Your task to perform on an android device: turn on bluetooth scan Image 0: 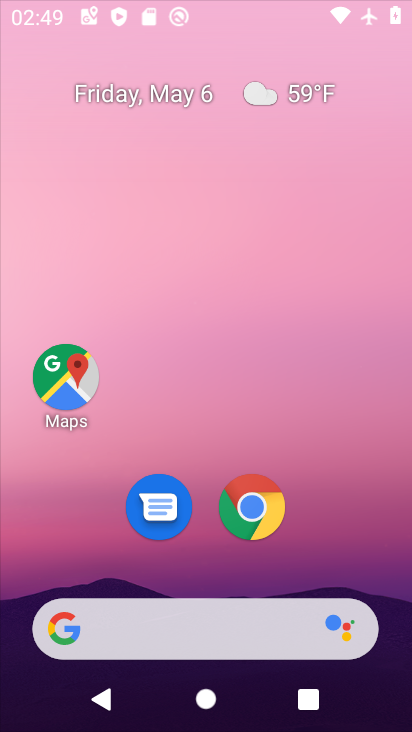
Step 0: drag from (319, 539) to (323, 25)
Your task to perform on an android device: turn on bluetooth scan Image 1: 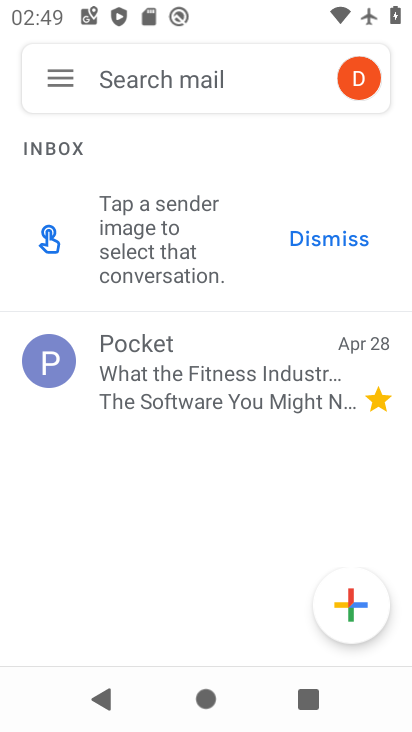
Step 1: press home button
Your task to perform on an android device: turn on bluetooth scan Image 2: 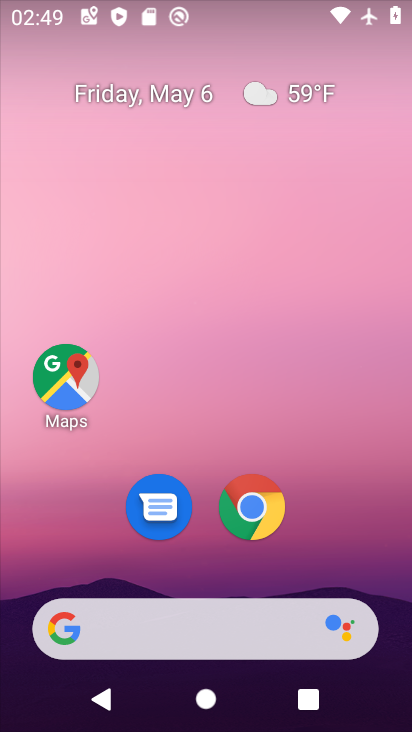
Step 2: drag from (336, 509) to (319, 158)
Your task to perform on an android device: turn on bluetooth scan Image 3: 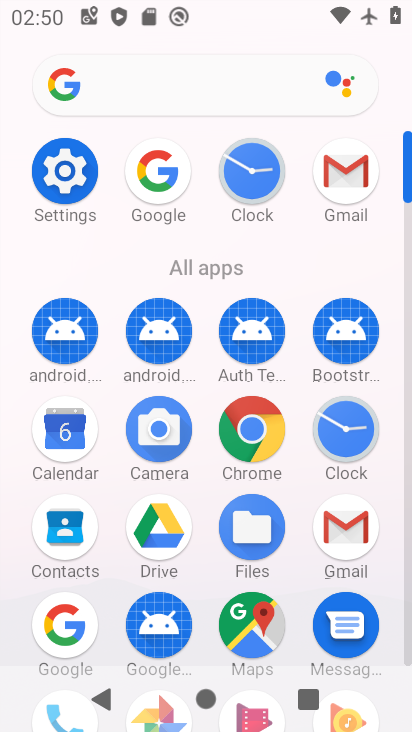
Step 3: click (57, 178)
Your task to perform on an android device: turn on bluetooth scan Image 4: 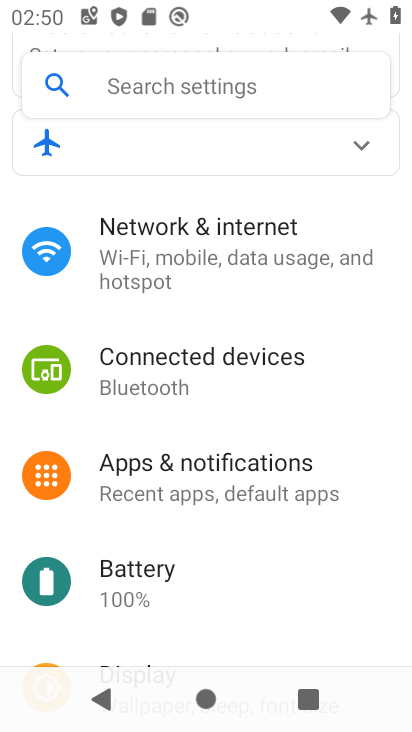
Step 4: drag from (211, 594) to (230, 320)
Your task to perform on an android device: turn on bluetooth scan Image 5: 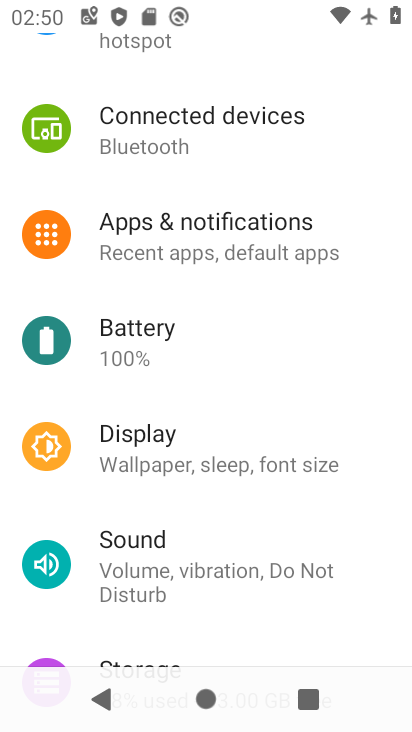
Step 5: drag from (212, 602) to (226, 320)
Your task to perform on an android device: turn on bluetooth scan Image 6: 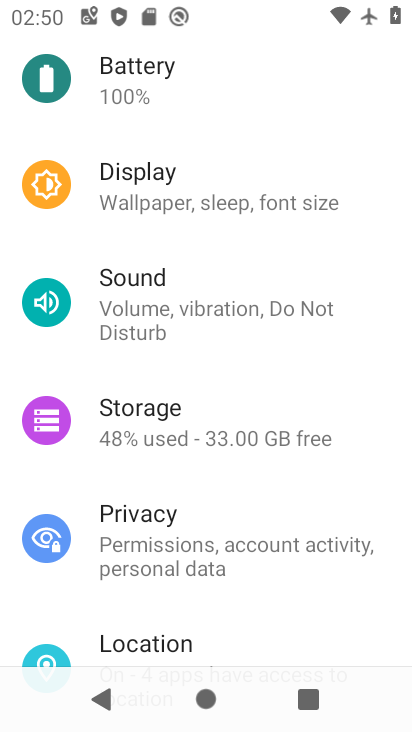
Step 6: drag from (221, 622) to (242, 413)
Your task to perform on an android device: turn on bluetooth scan Image 7: 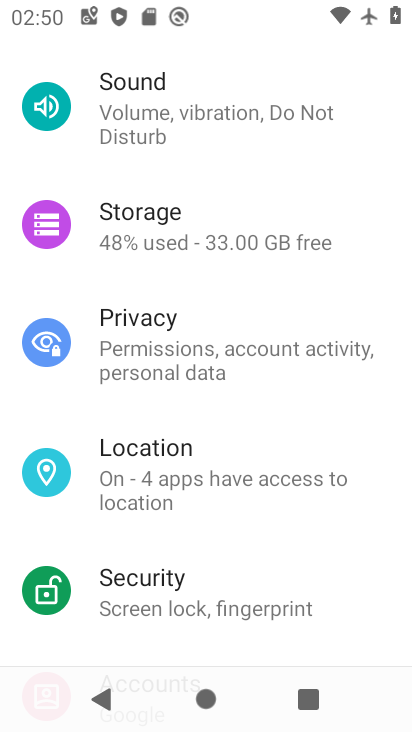
Step 7: click (204, 495)
Your task to perform on an android device: turn on bluetooth scan Image 8: 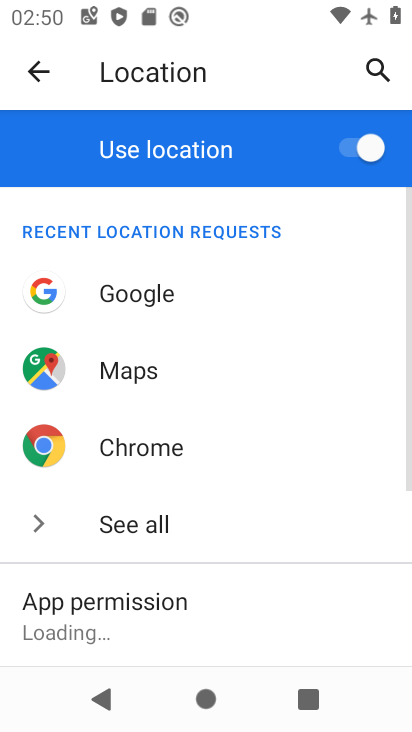
Step 8: drag from (212, 603) to (219, 374)
Your task to perform on an android device: turn on bluetooth scan Image 9: 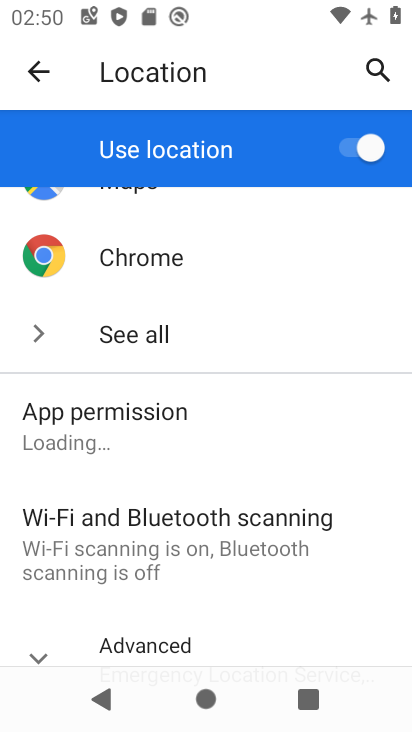
Step 9: drag from (239, 628) to (243, 384)
Your task to perform on an android device: turn on bluetooth scan Image 10: 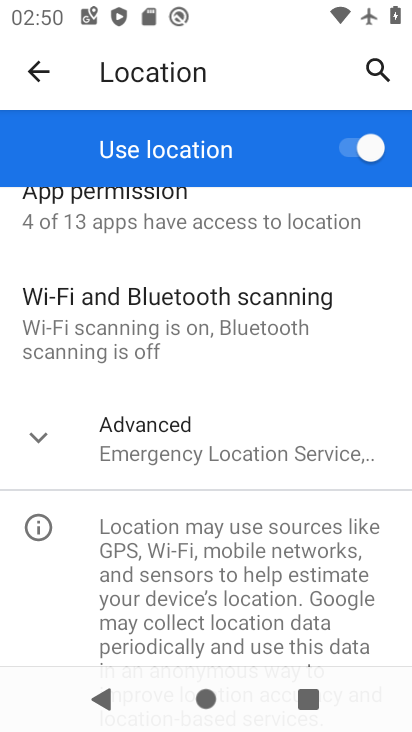
Step 10: click (145, 360)
Your task to perform on an android device: turn on bluetooth scan Image 11: 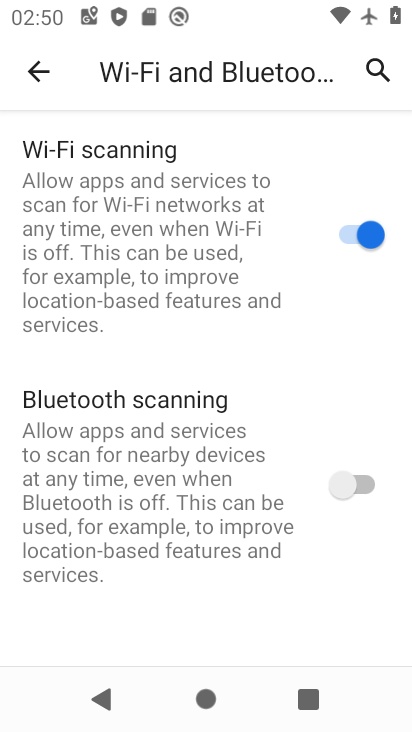
Step 11: click (364, 479)
Your task to perform on an android device: turn on bluetooth scan Image 12: 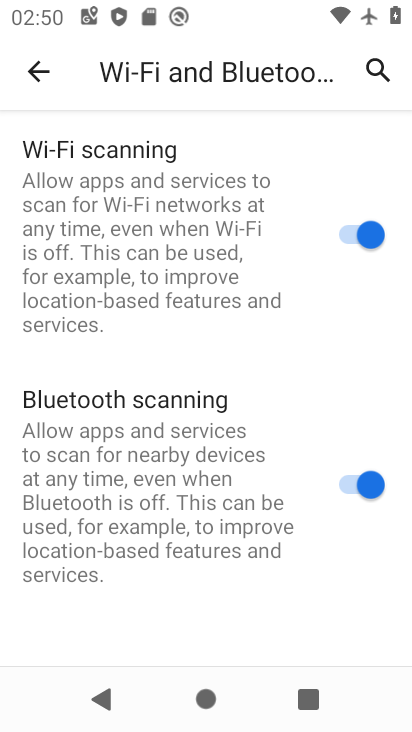
Step 12: task complete